Your task to perform on an android device: set the stopwatch Image 0: 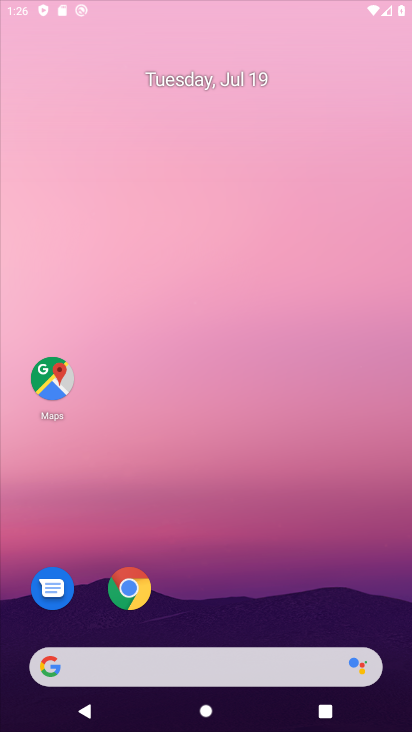
Step 0: press home button
Your task to perform on an android device: set the stopwatch Image 1: 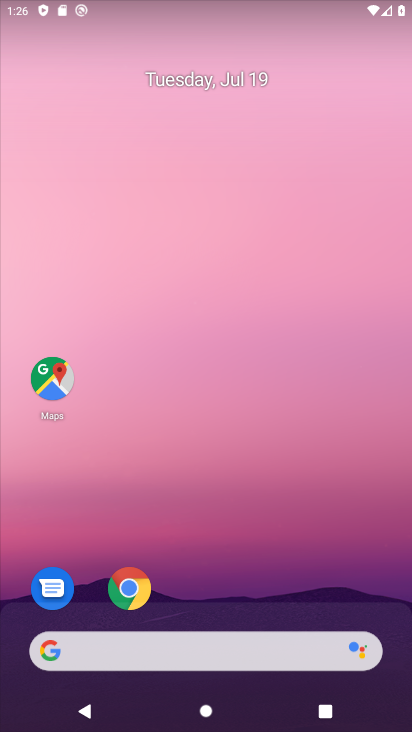
Step 1: drag from (272, 567) to (145, 170)
Your task to perform on an android device: set the stopwatch Image 2: 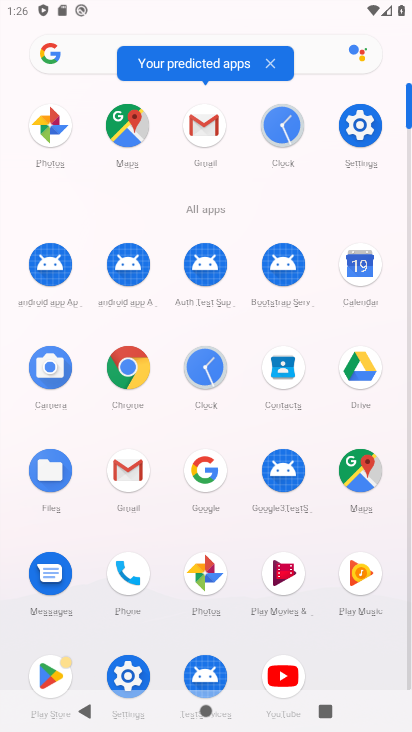
Step 2: click (270, 124)
Your task to perform on an android device: set the stopwatch Image 3: 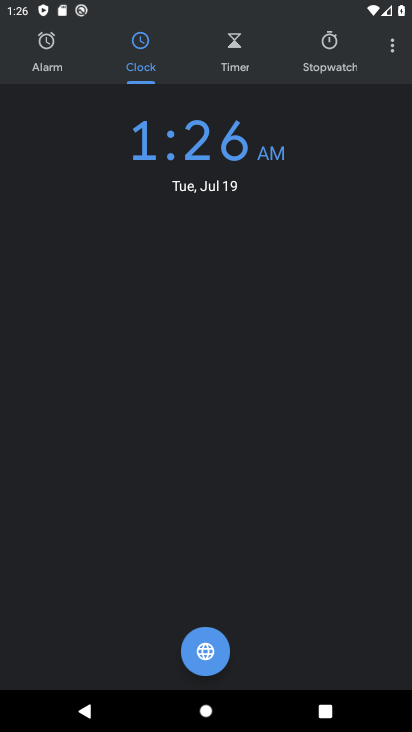
Step 3: click (337, 38)
Your task to perform on an android device: set the stopwatch Image 4: 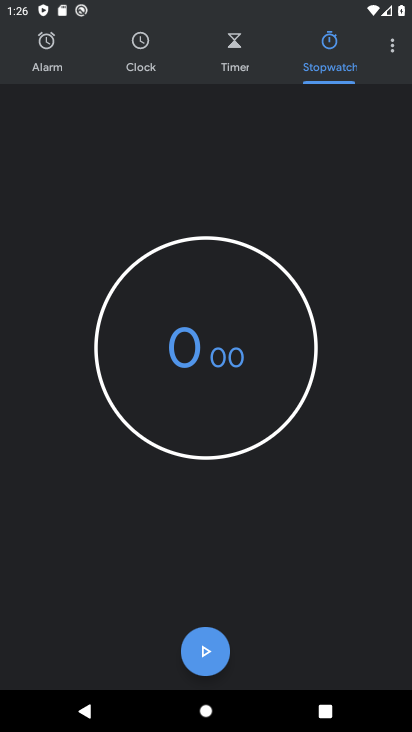
Step 4: task complete